Your task to perform on an android device: Open network settings Image 0: 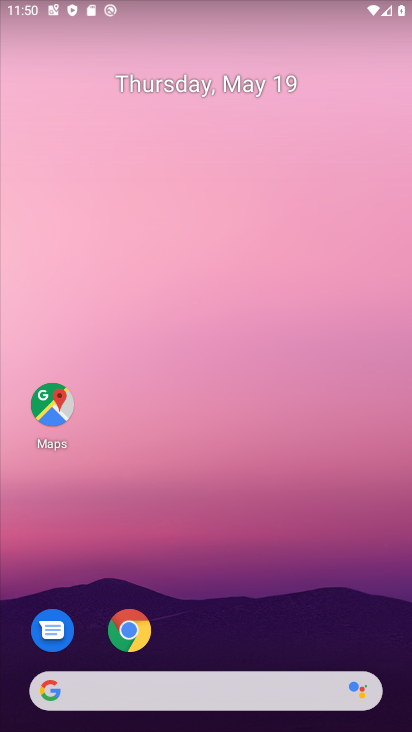
Step 0: drag from (255, 604) to (246, 162)
Your task to perform on an android device: Open network settings Image 1: 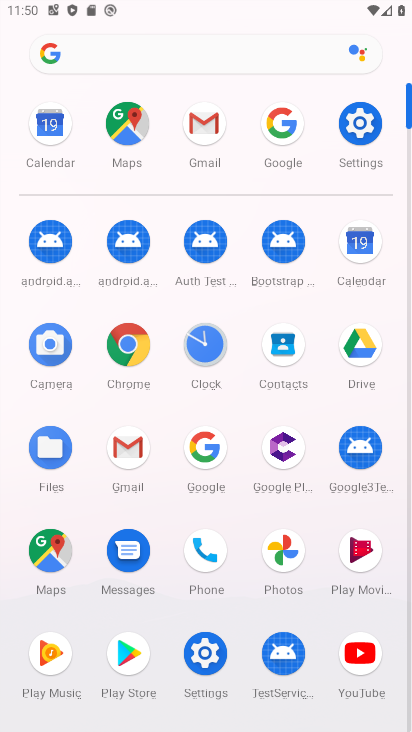
Step 1: click (204, 653)
Your task to perform on an android device: Open network settings Image 2: 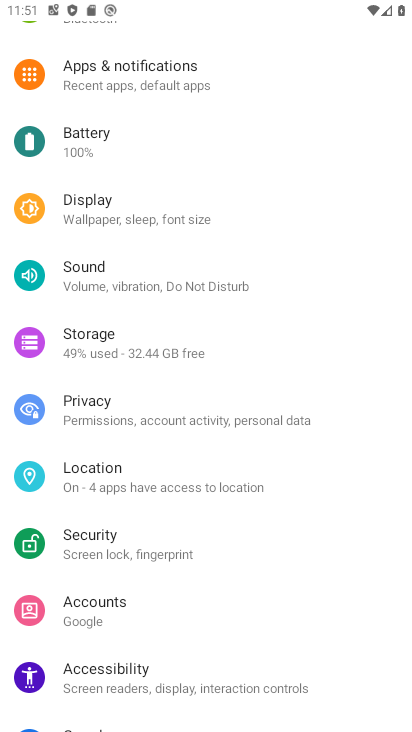
Step 2: drag from (157, 169) to (163, 340)
Your task to perform on an android device: Open network settings Image 3: 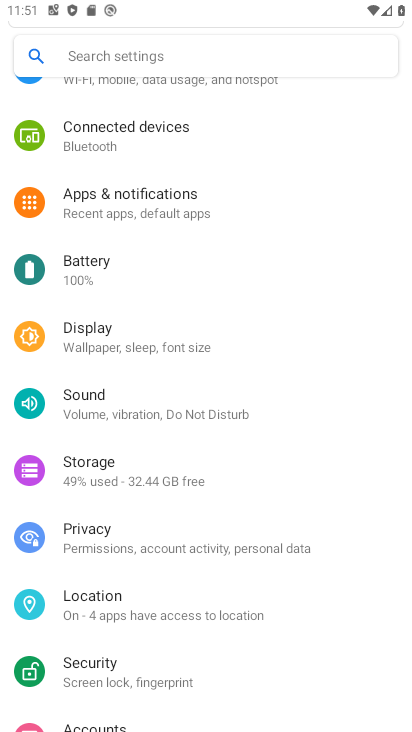
Step 3: drag from (179, 159) to (196, 315)
Your task to perform on an android device: Open network settings Image 4: 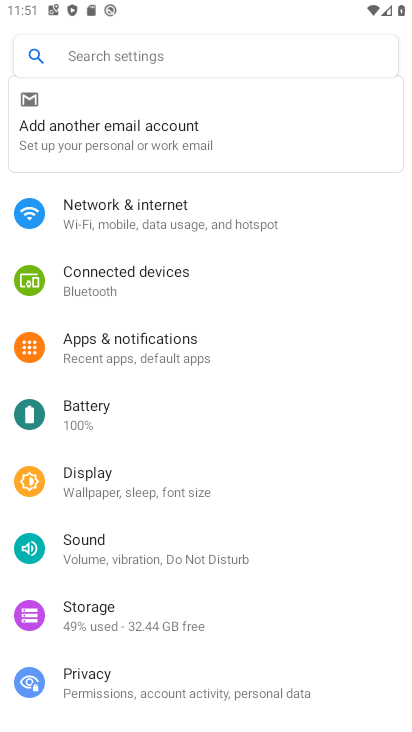
Step 4: click (152, 214)
Your task to perform on an android device: Open network settings Image 5: 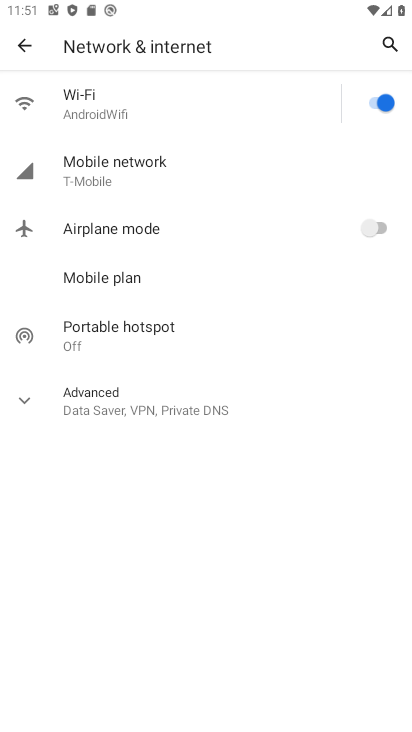
Step 5: click (108, 153)
Your task to perform on an android device: Open network settings Image 6: 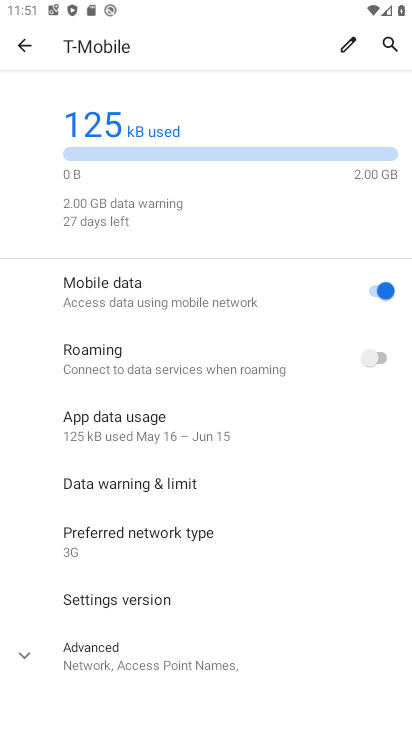
Step 6: task complete